Your task to perform on an android device: set the stopwatch Image 0: 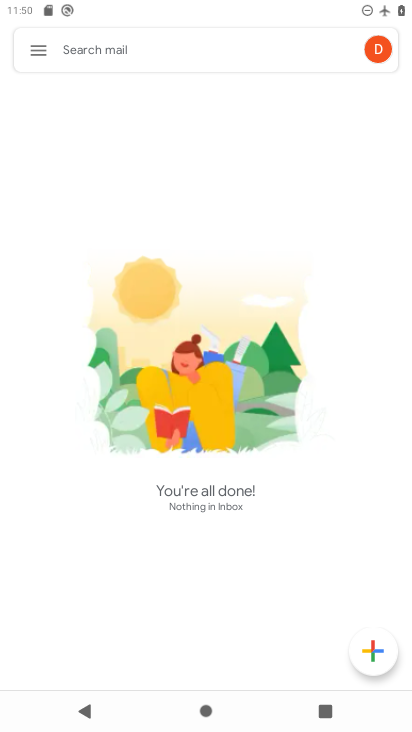
Step 0: press home button
Your task to perform on an android device: set the stopwatch Image 1: 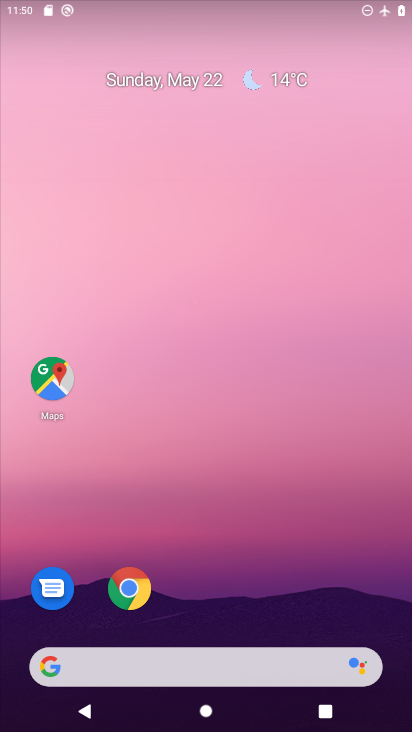
Step 1: drag from (216, 610) to (235, 224)
Your task to perform on an android device: set the stopwatch Image 2: 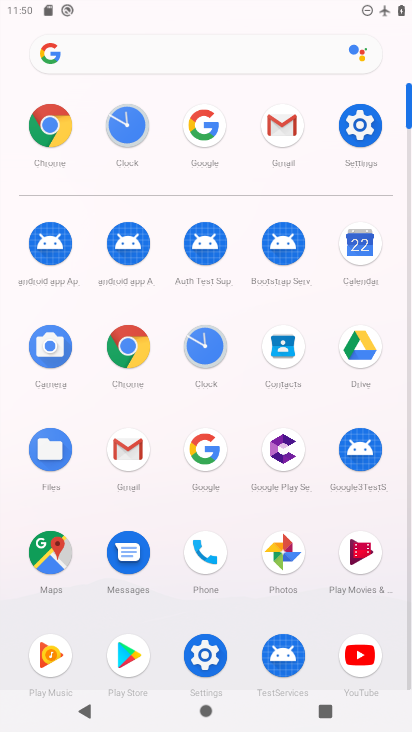
Step 2: click (196, 347)
Your task to perform on an android device: set the stopwatch Image 3: 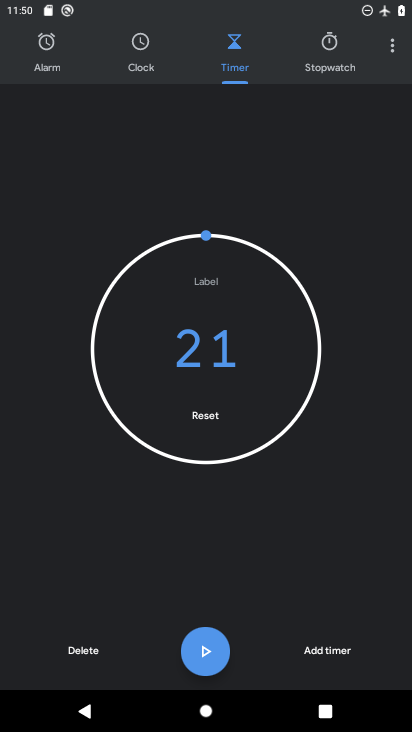
Step 3: click (315, 50)
Your task to perform on an android device: set the stopwatch Image 4: 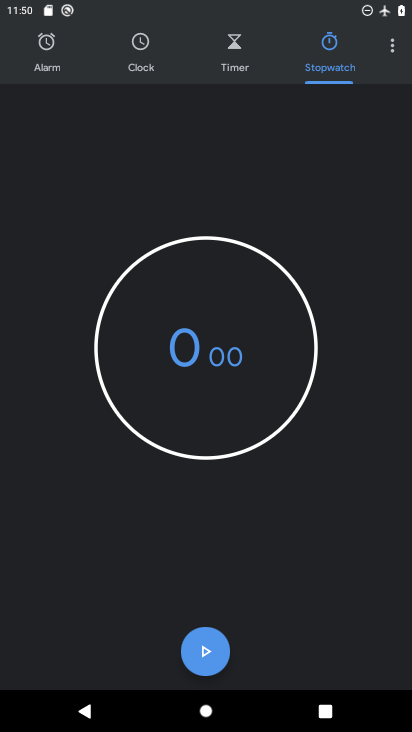
Step 4: click (220, 634)
Your task to perform on an android device: set the stopwatch Image 5: 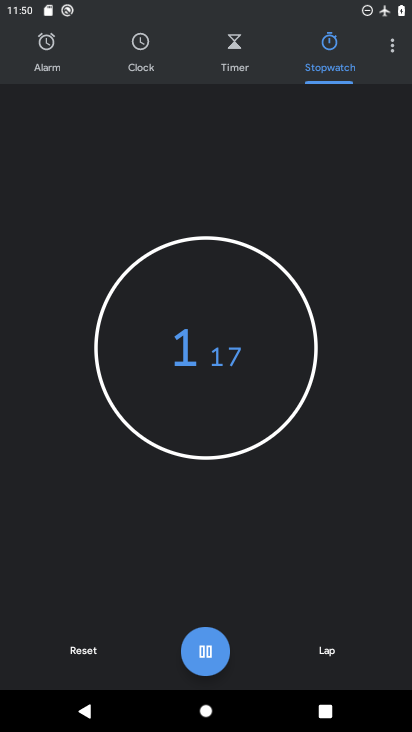
Step 5: task complete